Your task to perform on an android device: toggle translation in the chrome app Image 0: 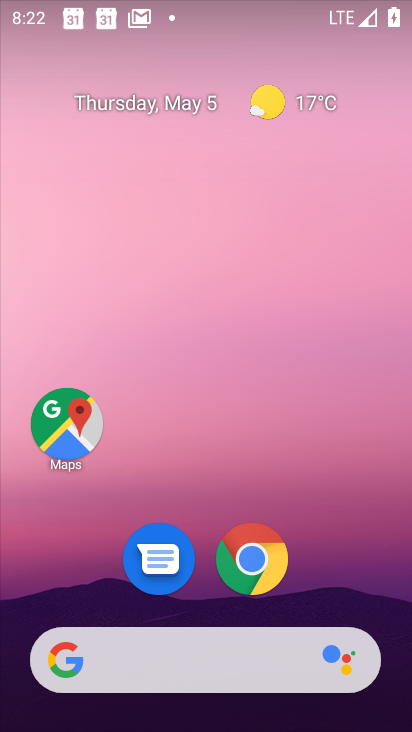
Step 0: click (258, 563)
Your task to perform on an android device: toggle translation in the chrome app Image 1: 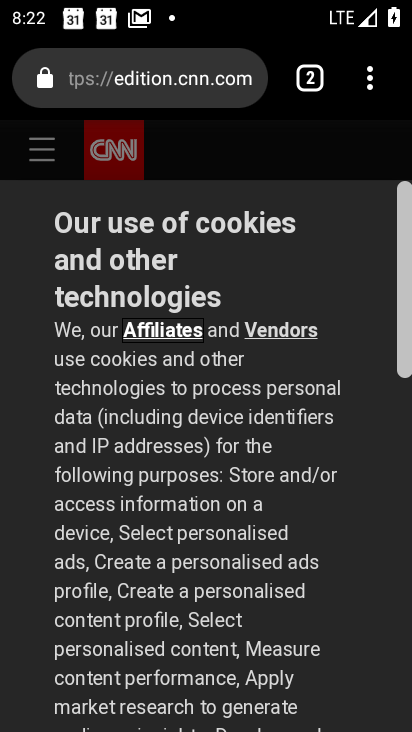
Step 1: drag from (367, 84) to (98, 615)
Your task to perform on an android device: toggle translation in the chrome app Image 2: 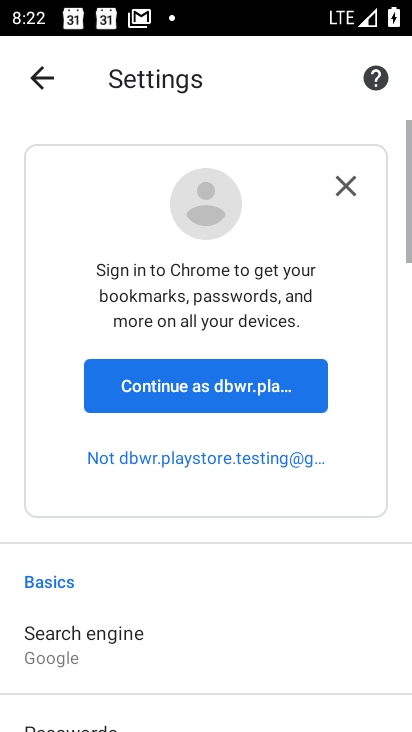
Step 2: drag from (251, 652) to (241, 231)
Your task to perform on an android device: toggle translation in the chrome app Image 3: 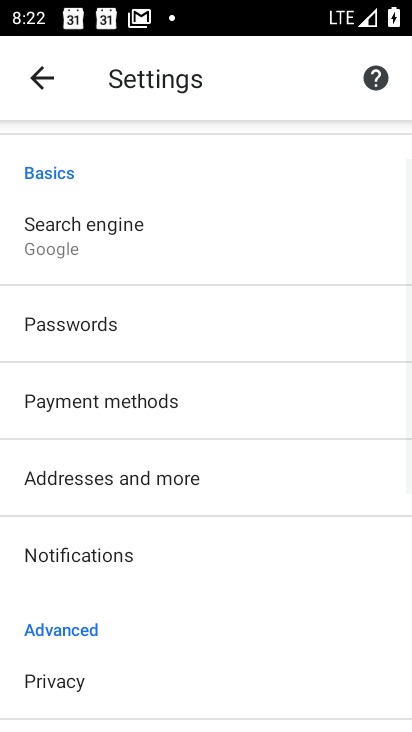
Step 3: drag from (233, 587) to (217, 254)
Your task to perform on an android device: toggle translation in the chrome app Image 4: 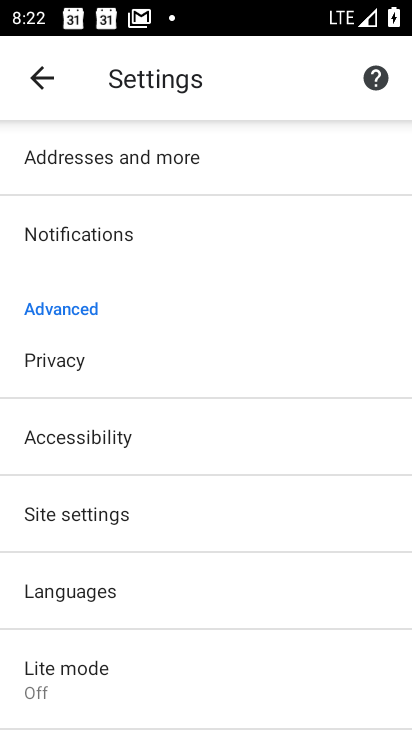
Step 4: click (58, 591)
Your task to perform on an android device: toggle translation in the chrome app Image 5: 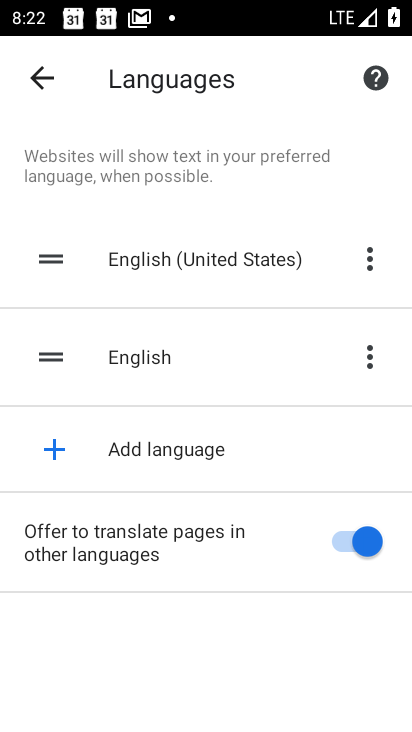
Step 5: click (354, 544)
Your task to perform on an android device: toggle translation in the chrome app Image 6: 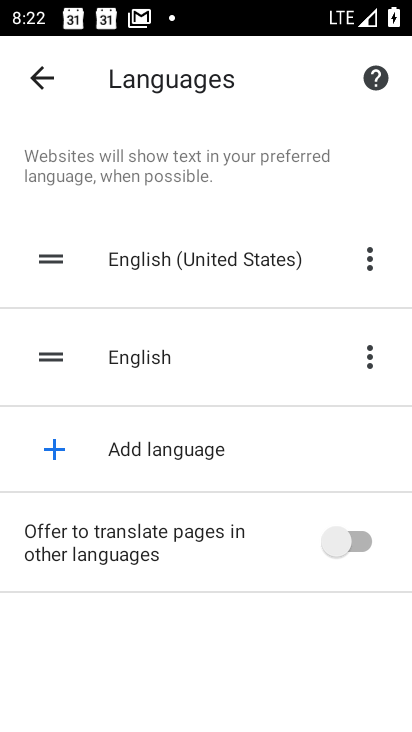
Step 6: task complete